Your task to perform on an android device: Show me the alarms in the clock app Image 0: 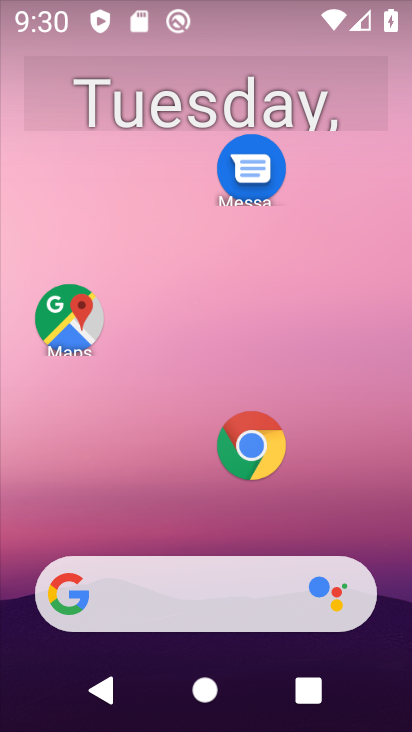
Step 0: drag from (171, 454) to (222, 16)
Your task to perform on an android device: Show me the alarms in the clock app Image 1: 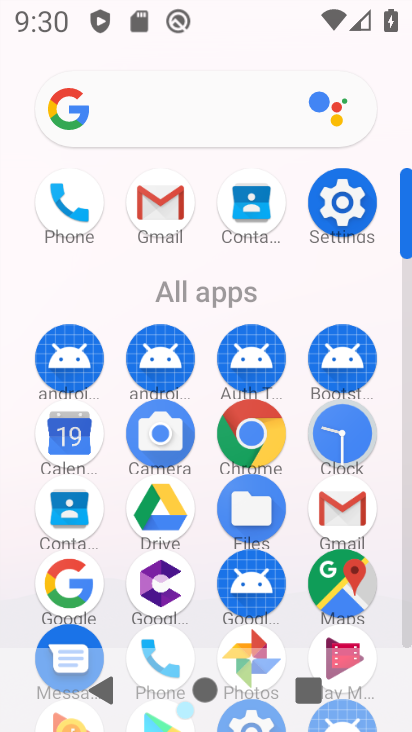
Step 1: click (352, 434)
Your task to perform on an android device: Show me the alarms in the clock app Image 2: 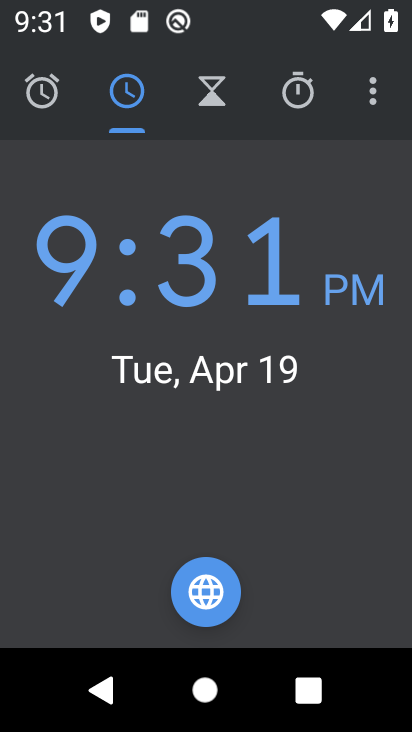
Step 2: click (51, 82)
Your task to perform on an android device: Show me the alarms in the clock app Image 3: 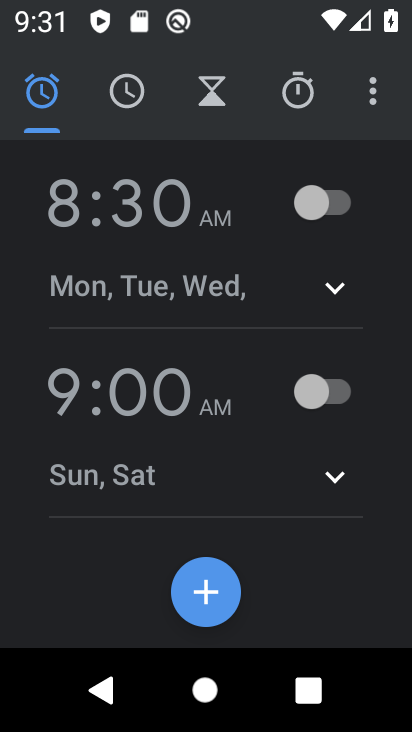
Step 3: task complete